Your task to perform on an android device: turn on sleep mode Image 0: 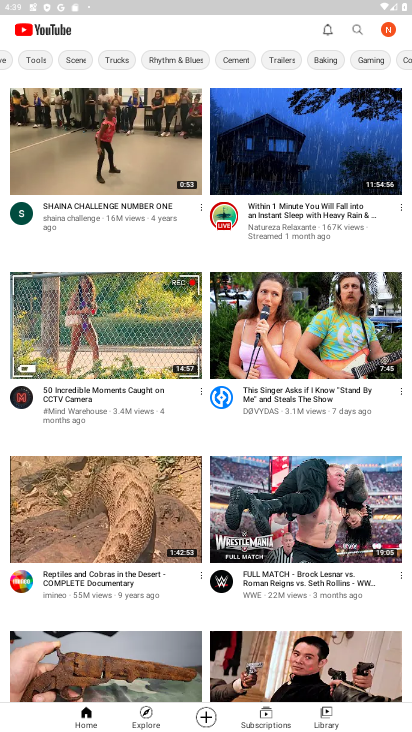
Step 0: press home button
Your task to perform on an android device: turn on sleep mode Image 1: 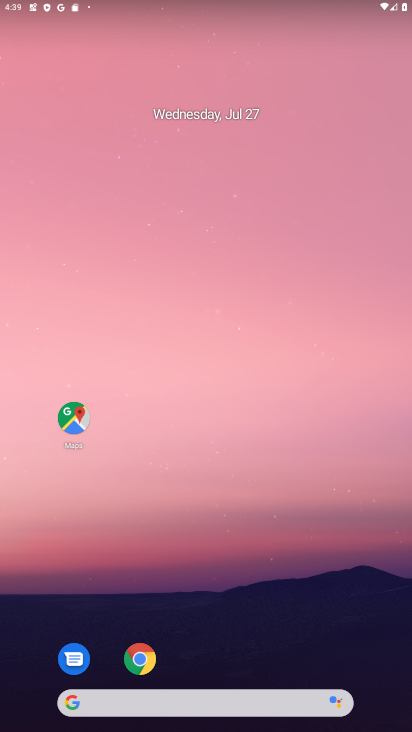
Step 1: drag from (228, 663) to (188, 14)
Your task to perform on an android device: turn on sleep mode Image 2: 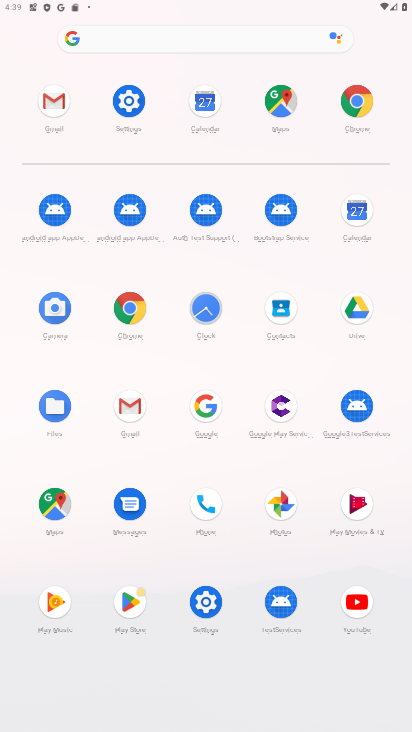
Step 2: click (128, 106)
Your task to perform on an android device: turn on sleep mode Image 3: 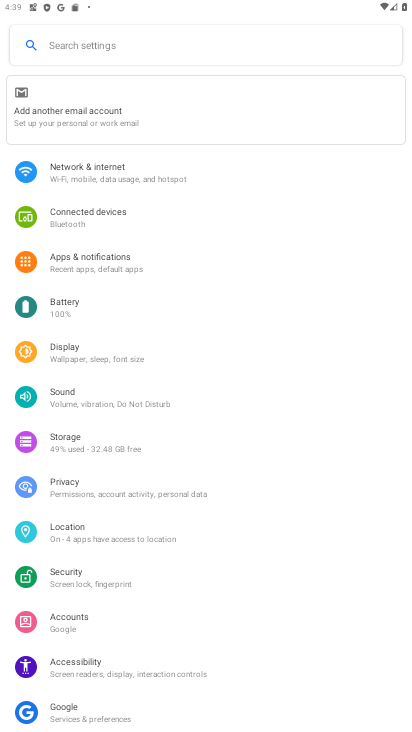
Step 3: click (148, 367)
Your task to perform on an android device: turn on sleep mode Image 4: 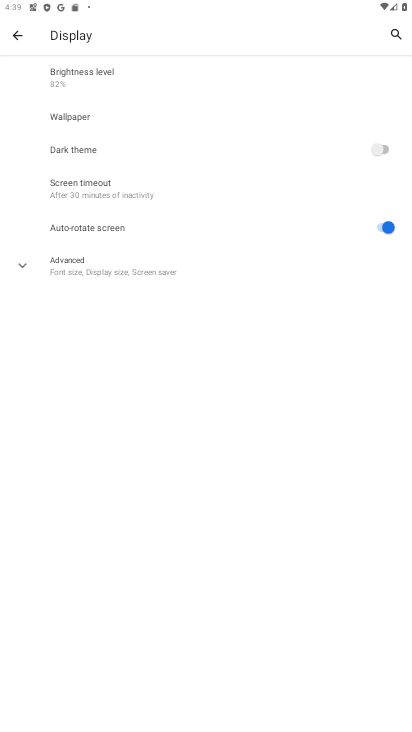
Step 4: click (294, 285)
Your task to perform on an android device: turn on sleep mode Image 5: 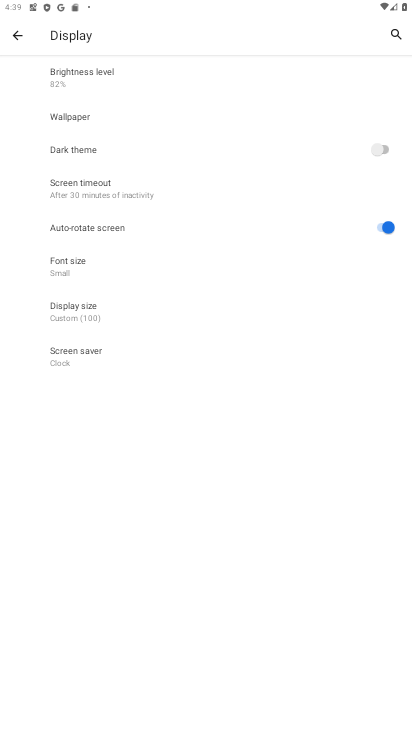
Step 5: task complete